Your task to perform on an android device: Show the shopping cart on newegg.com. Search for "logitech g pro" on newegg.com, select the first entry, and add it to the cart. Image 0: 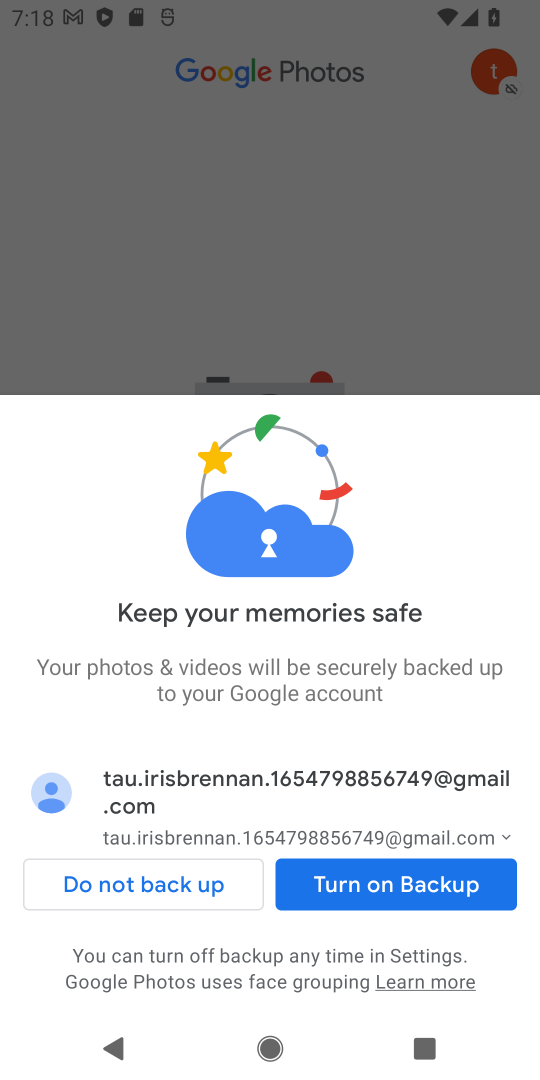
Step 0: press home button
Your task to perform on an android device: Show the shopping cart on newegg.com. Search for "logitech g pro" on newegg.com, select the first entry, and add it to the cart. Image 1: 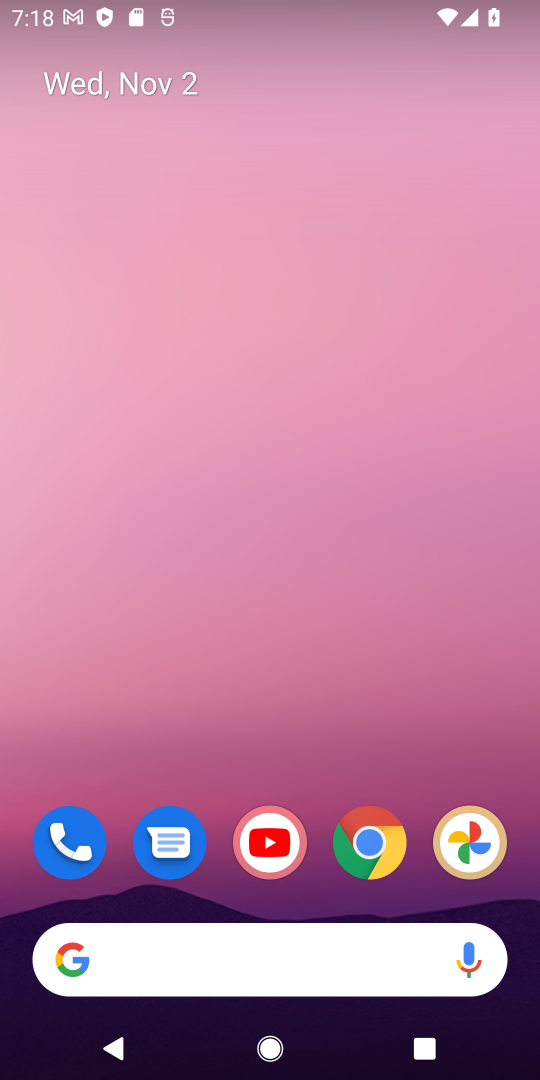
Step 1: drag from (194, 892) to (265, 324)
Your task to perform on an android device: Show the shopping cart on newegg.com. Search for "logitech g pro" on newegg.com, select the first entry, and add it to the cart. Image 2: 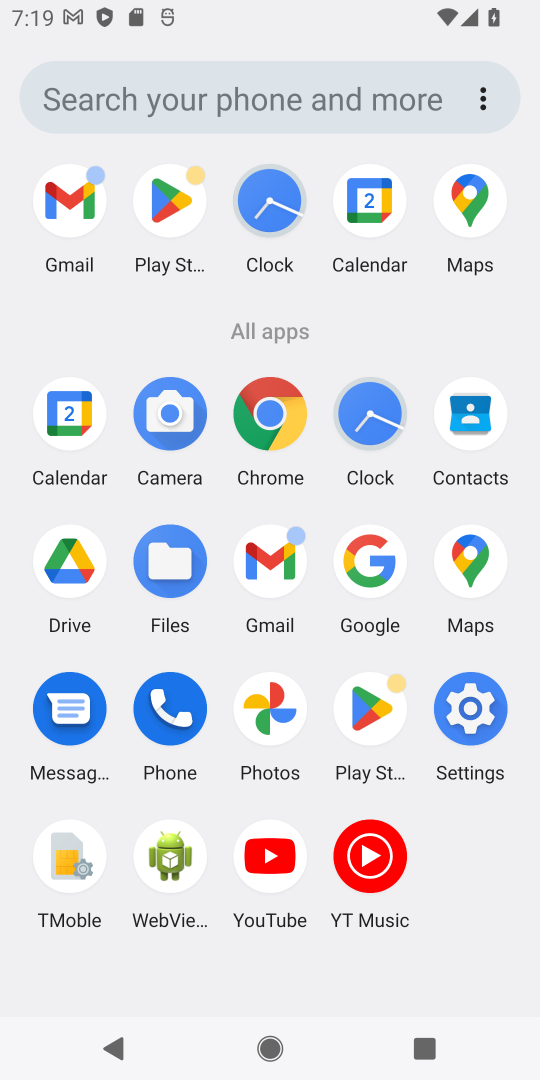
Step 2: click (352, 555)
Your task to perform on an android device: Show the shopping cart on newegg.com. Search for "logitech g pro" on newegg.com, select the first entry, and add it to the cart. Image 3: 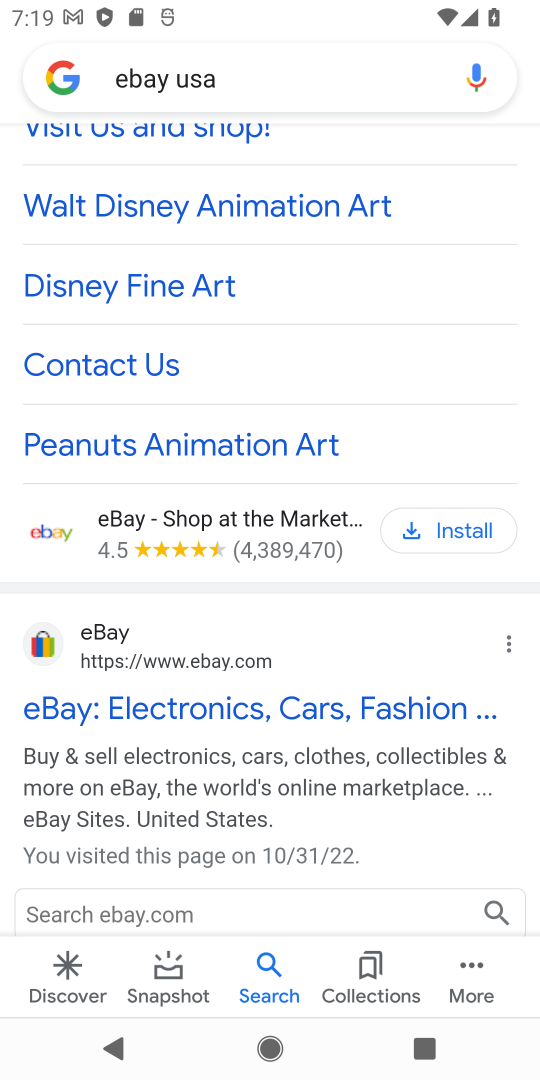
Step 3: click (140, 73)
Your task to perform on an android device: Show the shopping cart on newegg.com. Search for "logitech g pro" on newegg.com, select the first entry, and add it to the cart. Image 4: 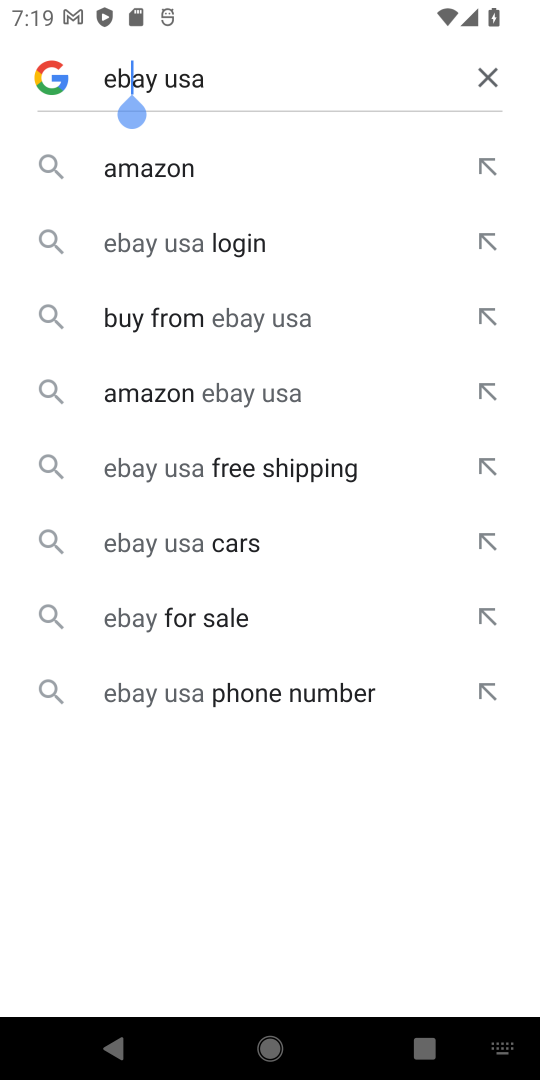
Step 4: click (477, 76)
Your task to perform on an android device: Show the shopping cart on newegg.com. Search for "logitech g pro" on newegg.com, select the first entry, and add it to the cart. Image 5: 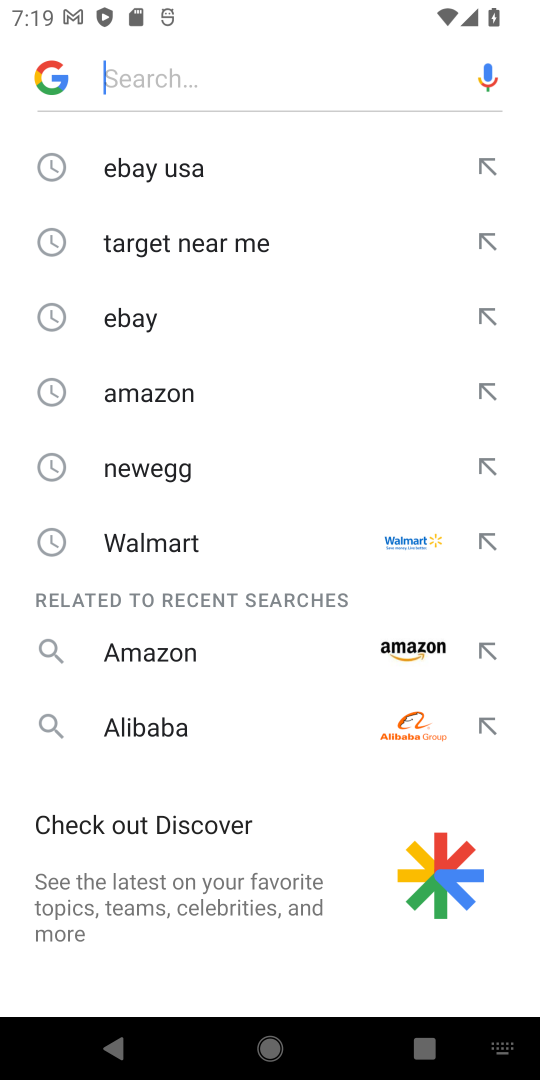
Step 5: click (181, 66)
Your task to perform on an android device: Show the shopping cart on newegg.com. Search for "logitech g pro" on newegg.com, select the first entry, and add it to the cart. Image 6: 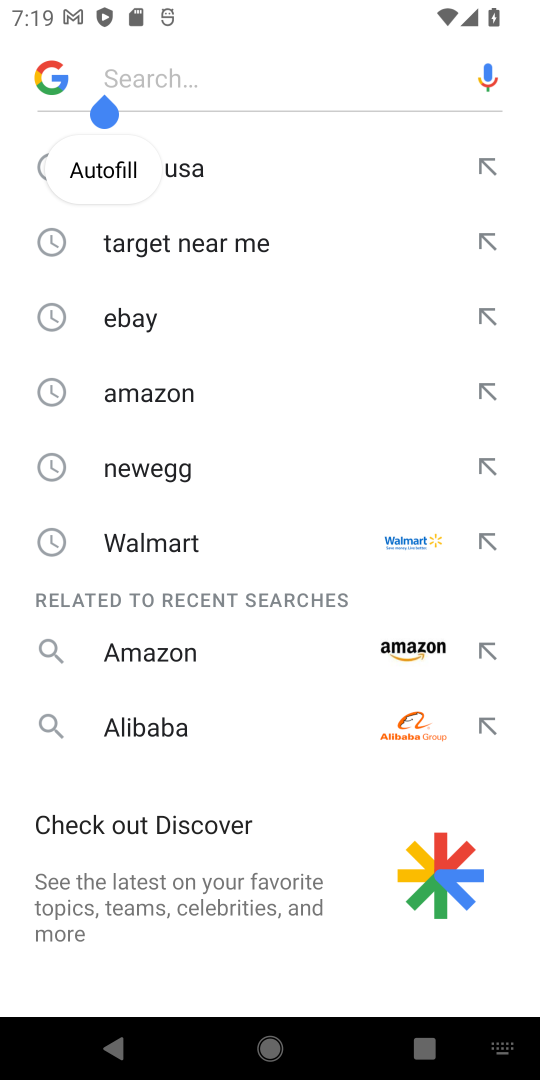
Step 6: type "newegg "
Your task to perform on an android device: Show the shopping cart on newegg.com. Search for "logitech g pro" on newegg.com, select the first entry, and add it to the cart. Image 7: 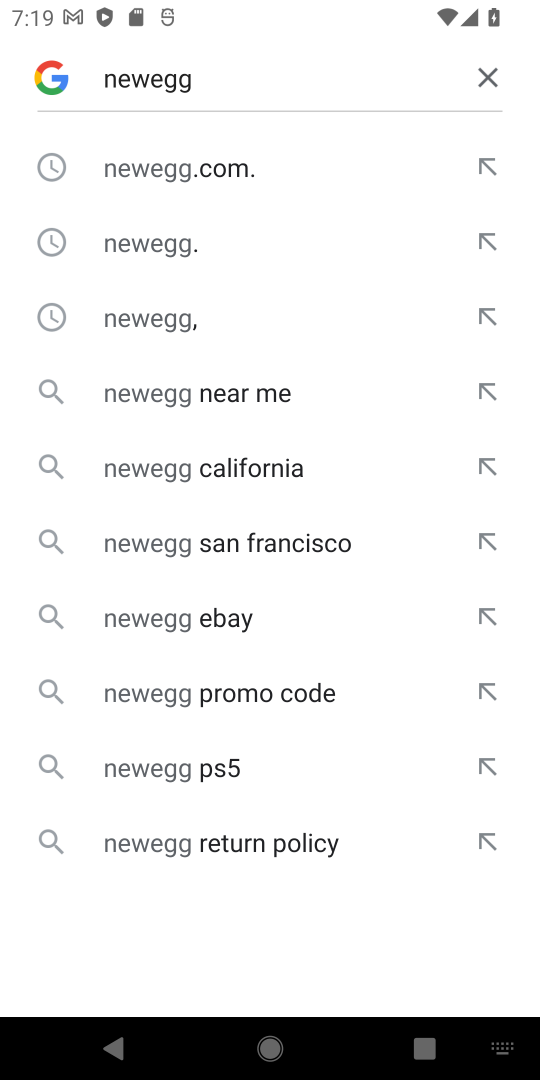
Step 7: click (182, 164)
Your task to perform on an android device: Show the shopping cart on newegg.com. Search for "logitech g pro" on newegg.com, select the first entry, and add it to the cart. Image 8: 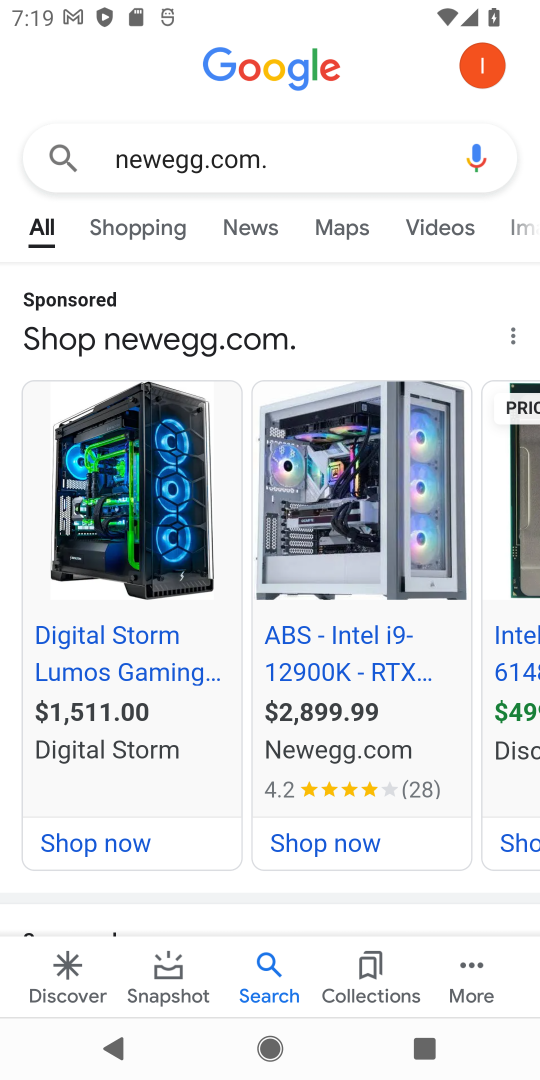
Step 8: drag from (148, 744) to (201, 315)
Your task to perform on an android device: Show the shopping cart on newegg.com. Search for "logitech g pro" on newegg.com, select the first entry, and add it to the cart. Image 9: 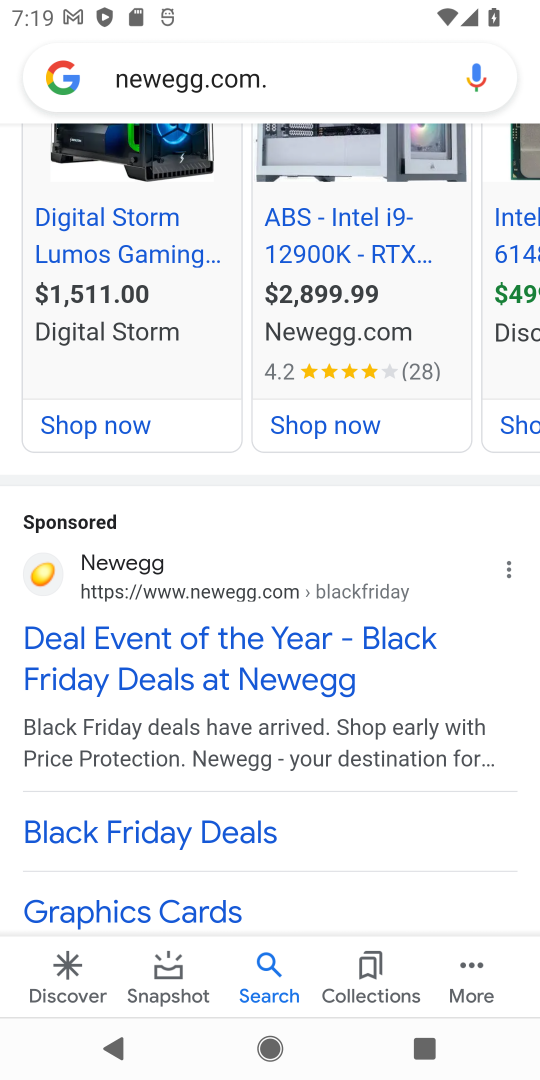
Step 9: click (40, 581)
Your task to perform on an android device: Show the shopping cart on newegg.com. Search for "logitech g pro" on newegg.com, select the first entry, and add it to the cart. Image 10: 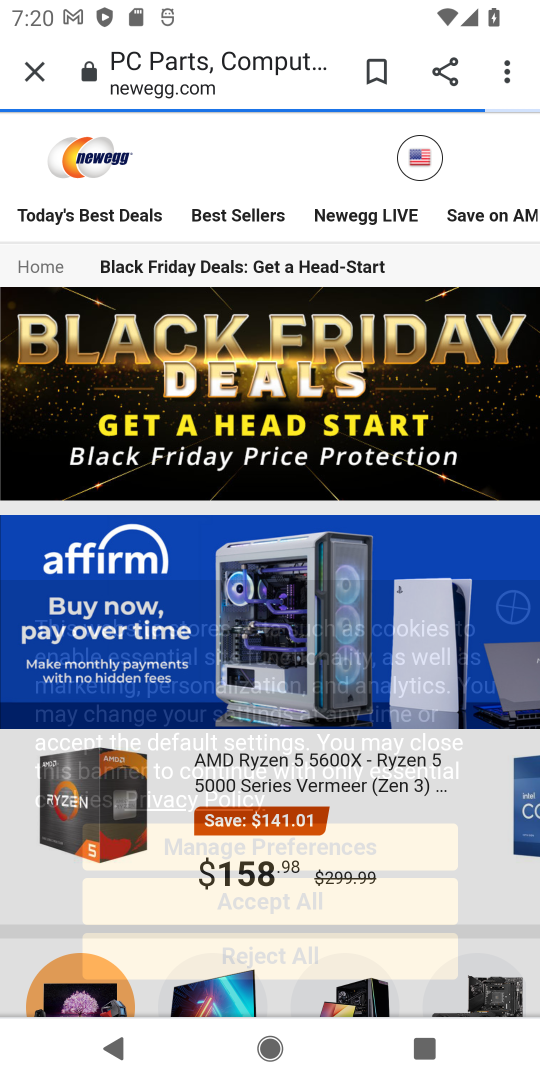
Step 10: drag from (197, 806) to (201, 705)
Your task to perform on an android device: Show the shopping cart on newegg.com. Search for "logitech g pro" on newegg.com, select the first entry, and add it to the cart. Image 11: 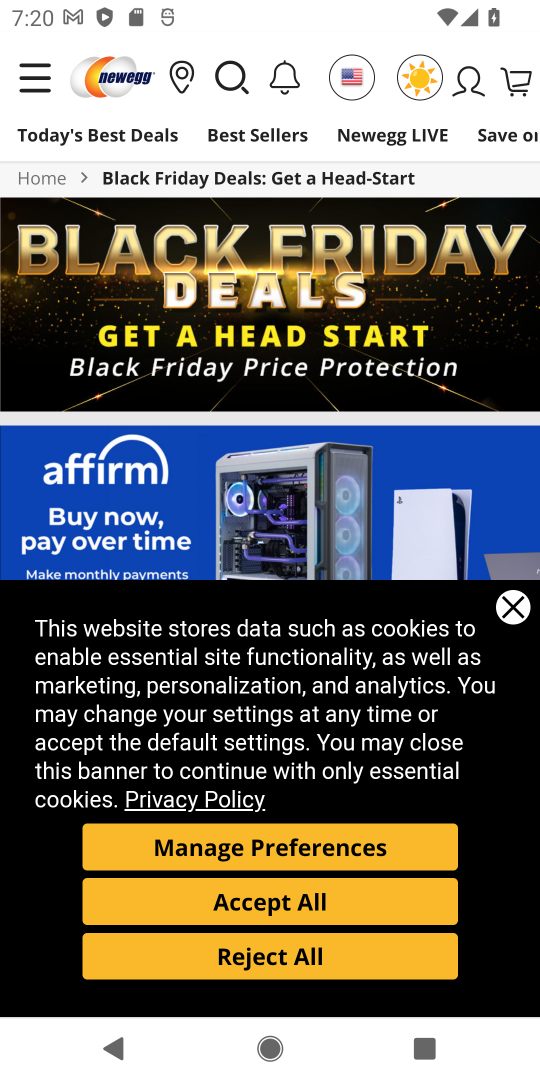
Step 11: click (508, 586)
Your task to perform on an android device: Show the shopping cart on newegg.com. Search for "logitech g pro" on newegg.com, select the first entry, and add it to the cart. Image 12: 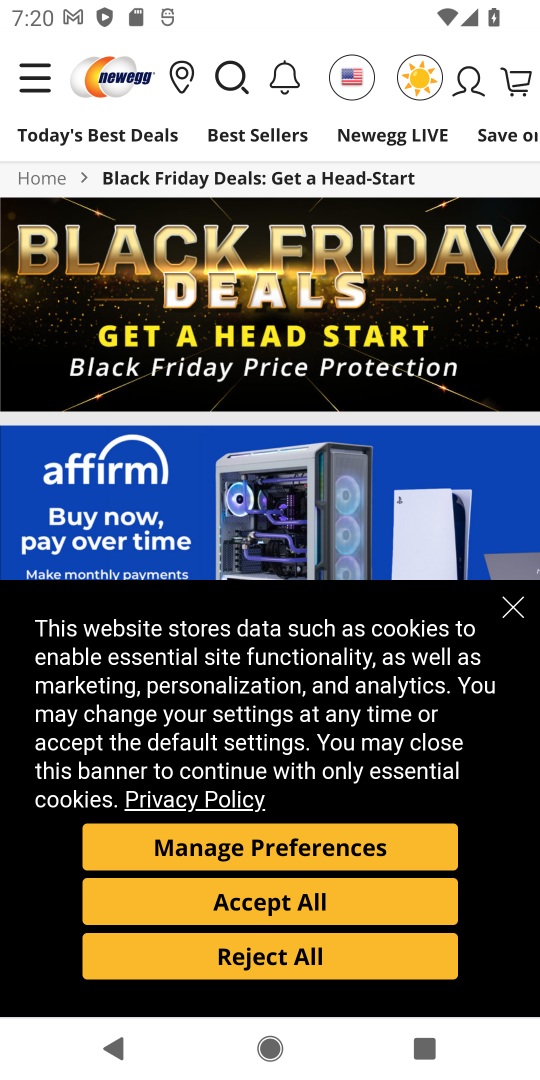
Step 12: click (509, 605)
Your task to perform on an android device: Show the shopping cart on newegg.com. Search for "logitech g pro" on newegg.com, select the first entry, and add it to the cart. Image 13: 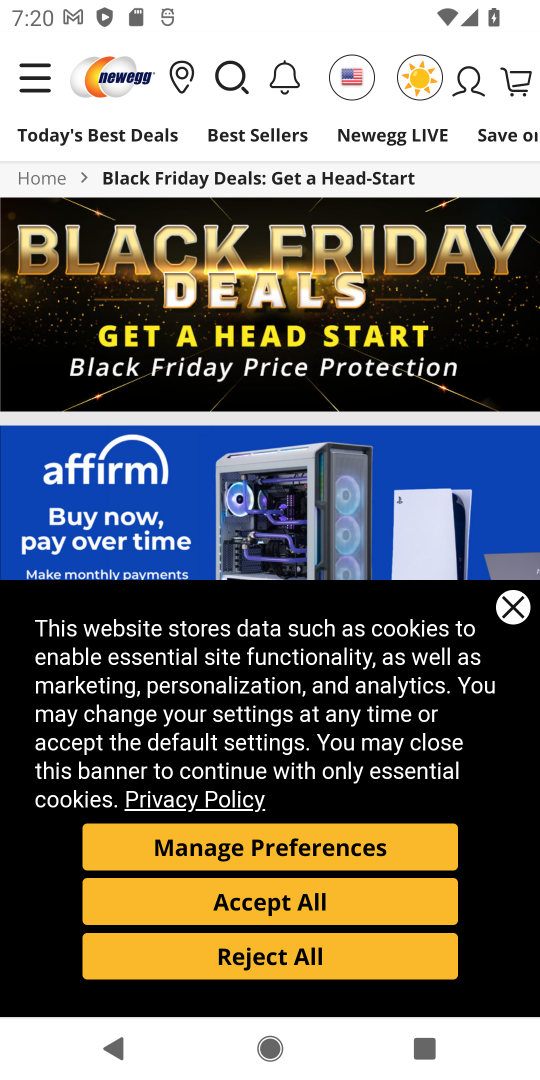
Step 13: click (500, 609)
Your task to perform on an android device: Show the shopping cart on newegg.com. Search for "logitech g pro" on newegg.com, select the first entry, and add it to the cart. Image 14: 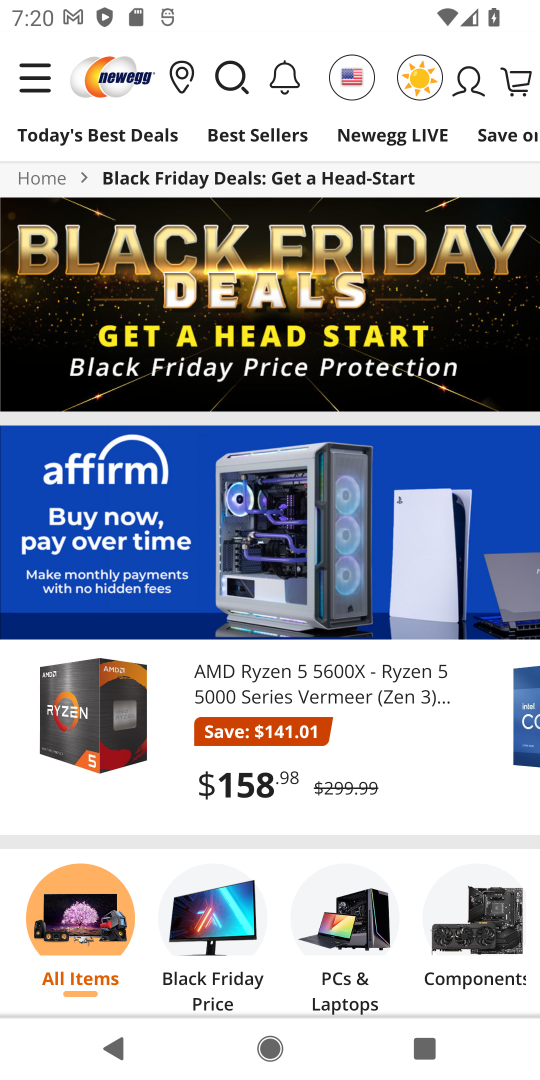
Step 14: click (230, 69)
Your task to perform on an android device: Show the shopping cart on newegg.com. Search for "logitech g pro" on newegg.com, select the first entry, and add it to the cart. Image 15: 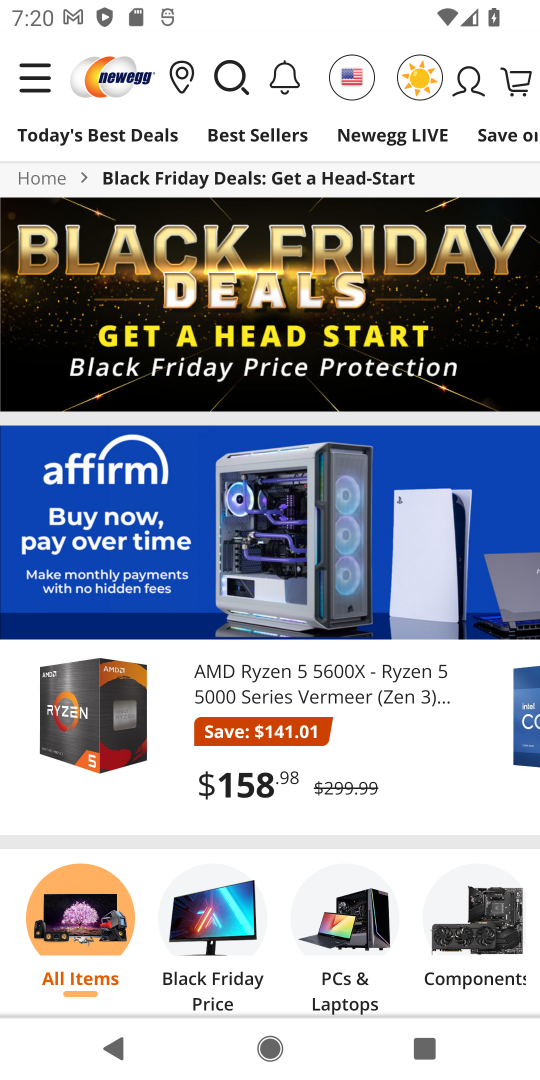
Step 15: click (230, 69)
Your task to perform on an android device: Show the shopping cart on newegg.com. Search for "logitech g pro" on newegg.com, select the first entry, and add it to the cart. Image 16: 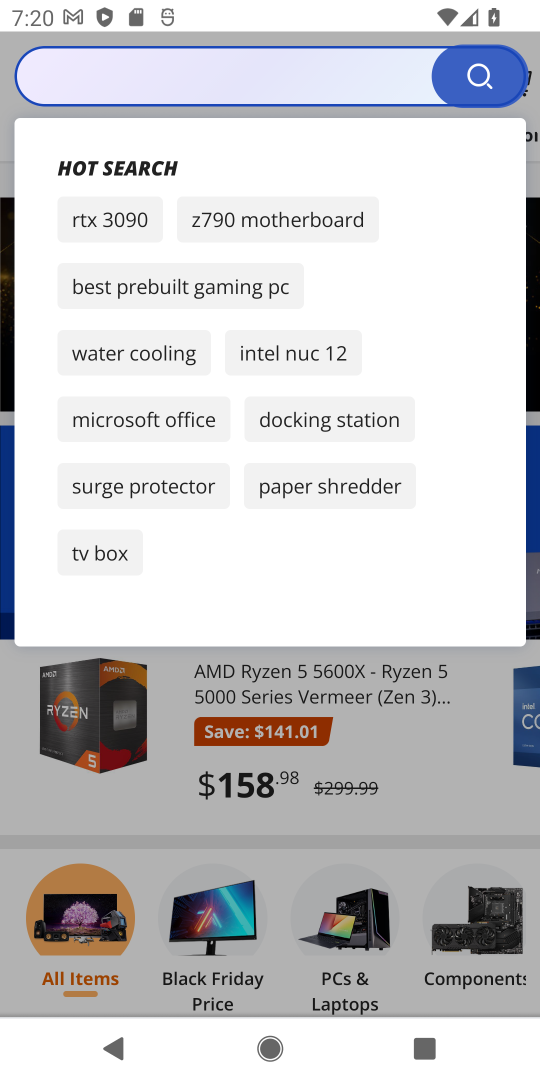
Step 16: click (185, 69)
Your task to perform on an android device: Show the shopping cart on newegg.com. Search for "logitech g pro" on newegg.com, select the first entry, and add it to the cart. Image 17: 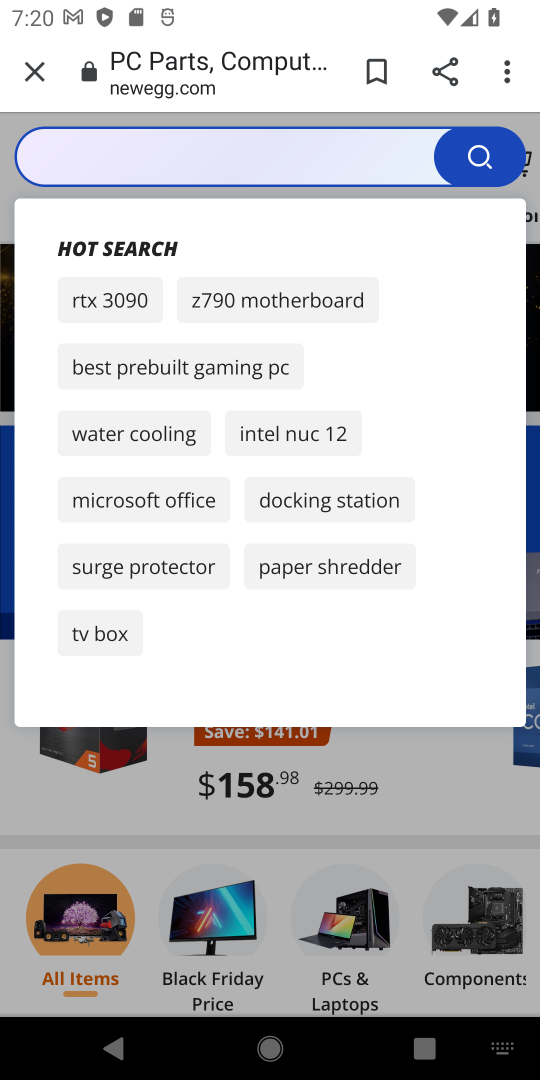
Step 17: type "logitech g pro "
Your task to perform on an android device: Show the shopping cart on newegg.com. Search for "logitech g pro" on newegg.com, select the first entry, and add it to the cart. Image 18: 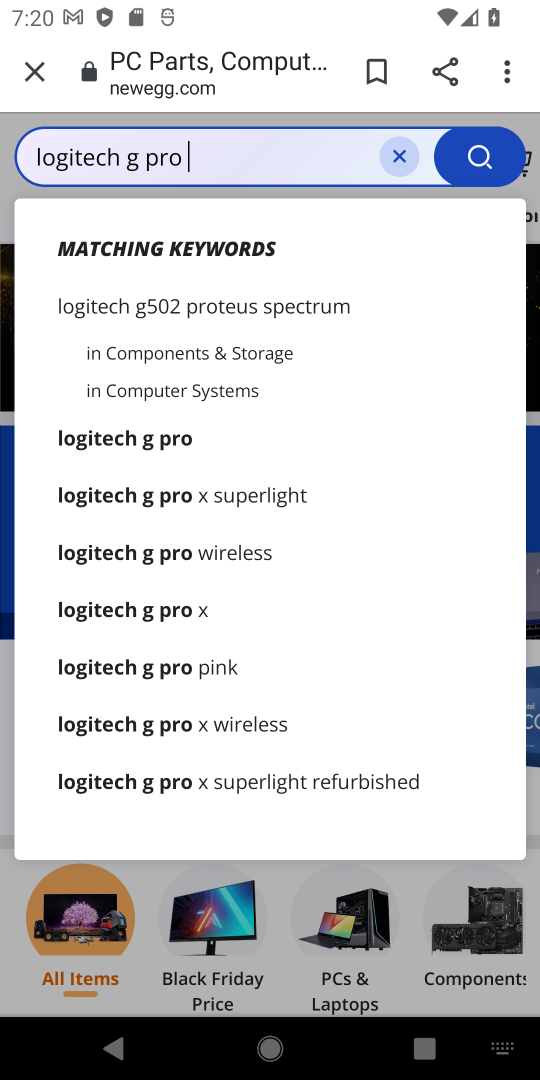
Step 18: click (124, 444)
Your task to perform on an android device: Show the shopping cart on newegg.com. Search for "logitech g pro" on newegg.com, select the first entry, and add it to the cart. Image 19: 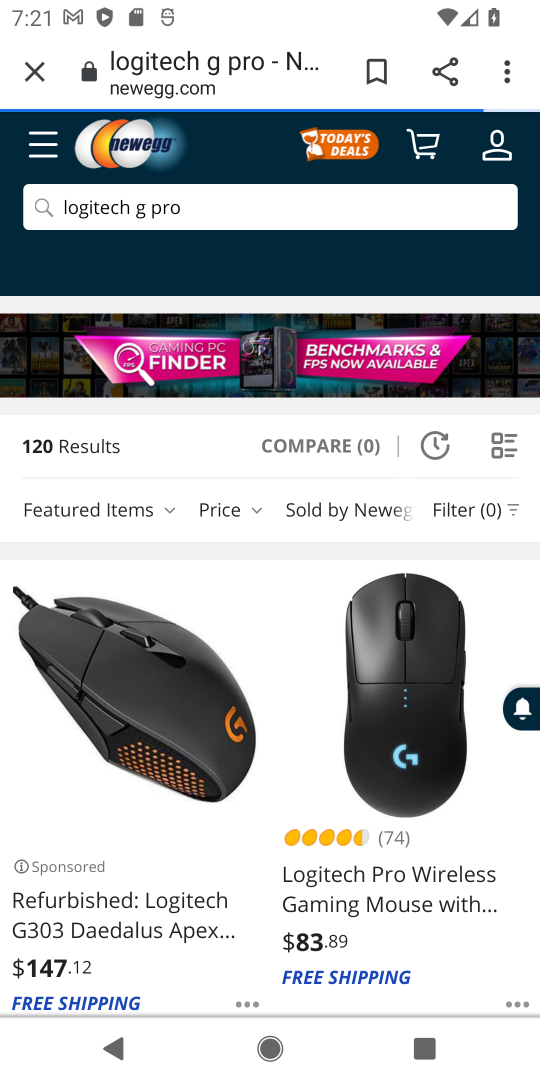
Step 19: drag from (138, 781) to (301, 381)
Your task to perform on an android device: Show the shopping cart on newegg.com. Search for "logitech g pro" on newegg.com, select the first entry, and add it to the cart. Image 20: 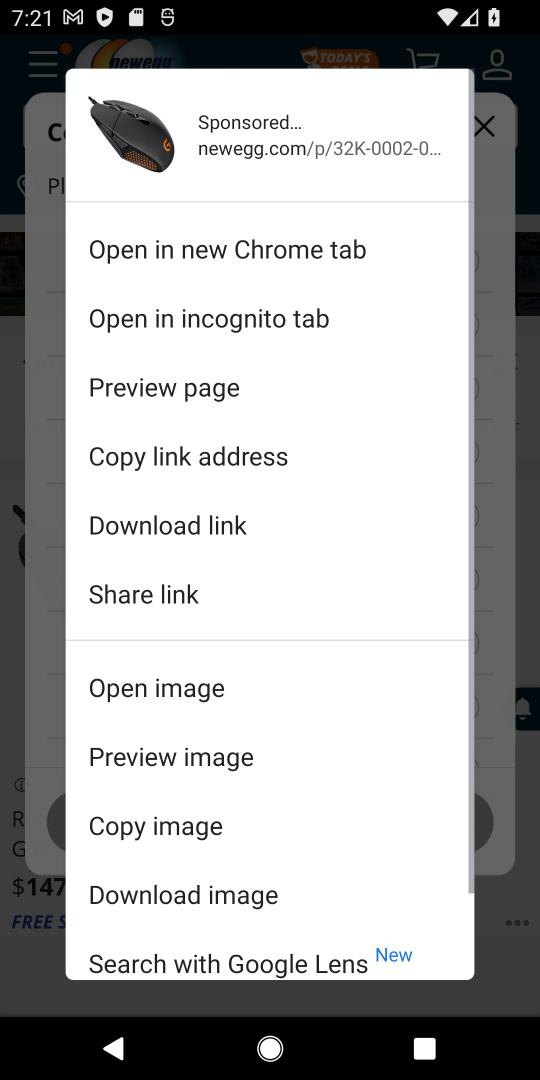
Step 20: click (199, 444)
Your task to perform on an android device: Show the shopping cart on newegg.com. Search for "logitech g pro" on newegg.com, select the first entry, and add it to the cart. Image 21: 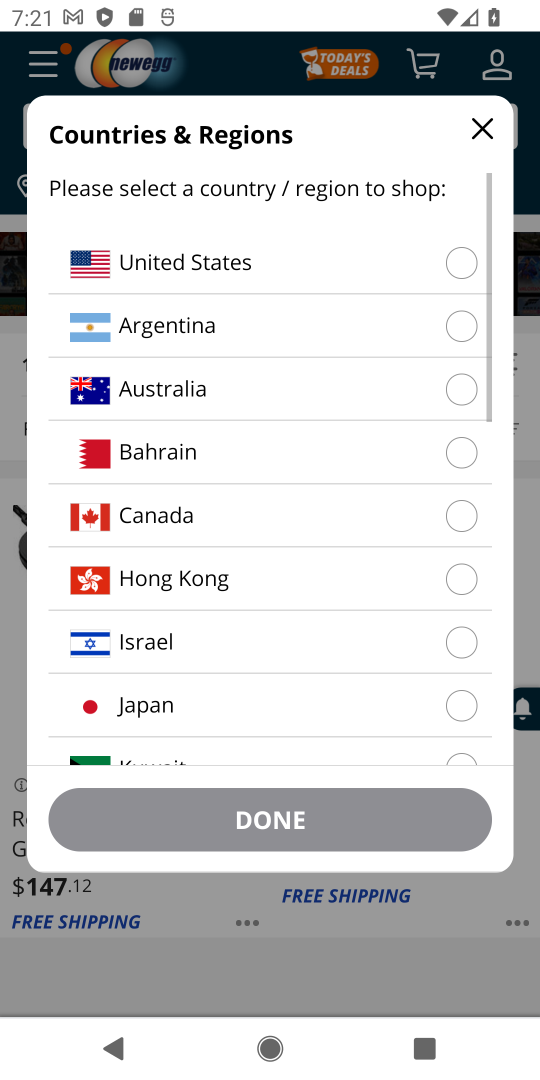
Step 21: click (457, 219)
Your task to perform on an android device: Show the shopping cart on newegg.com. Search for "logitech g pro" on newegg.com, select the first entry, and add it to the cart. Image 22: 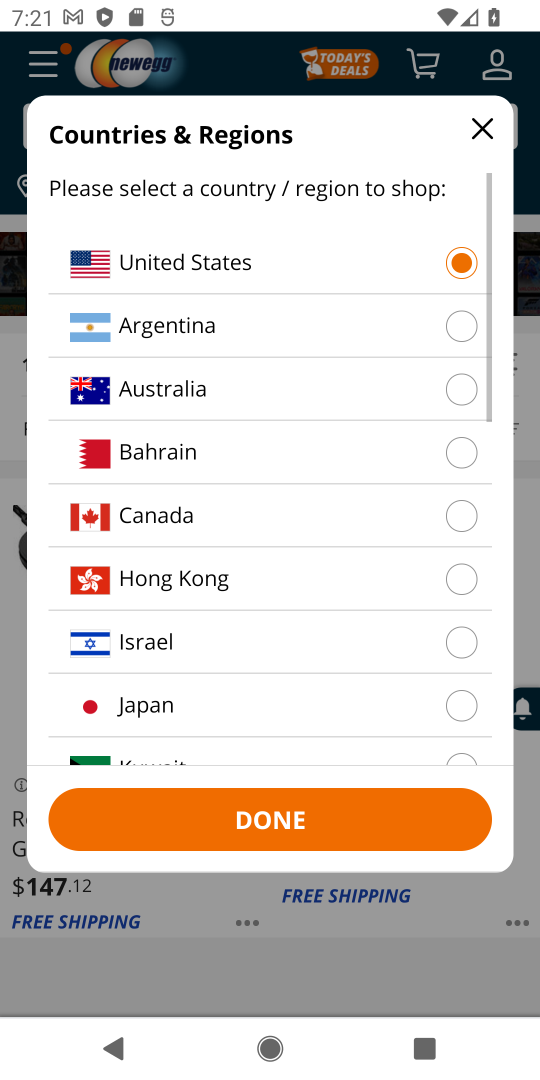
Step 22: click (434, 306)
Your task to perform on an android device: Show the shopping cart on newegg.com. Search for "logitech g pro" on newegg.com, select the first entry, and add it to the cart. Image 23: 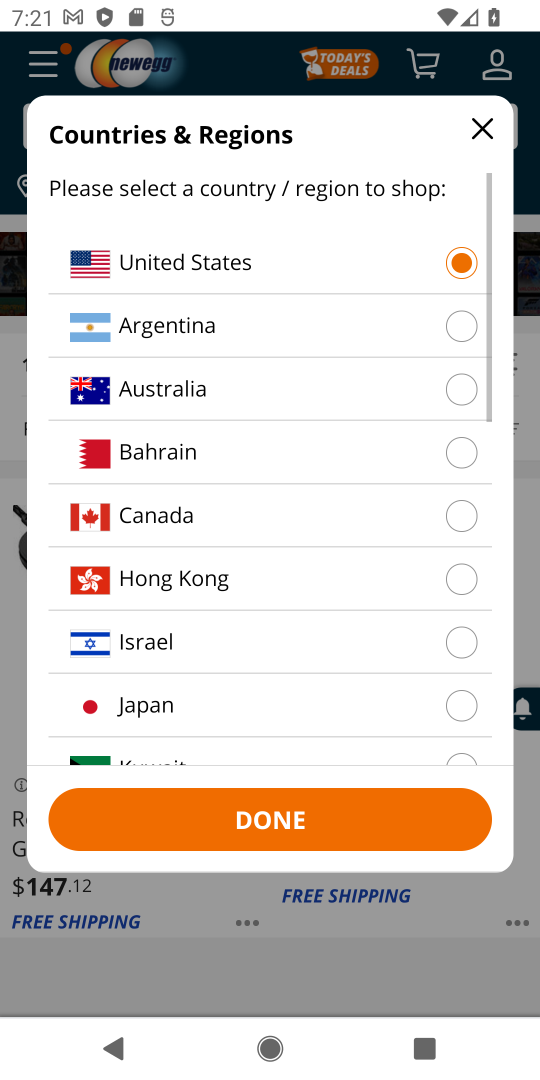
Step 23: click (490, 203)
Your task to perform on an android device: Show the shopping cart on newegg.com. Search for "logitech g pro" on newegg.com, select the first entry, and add it to the cart. Image 24: 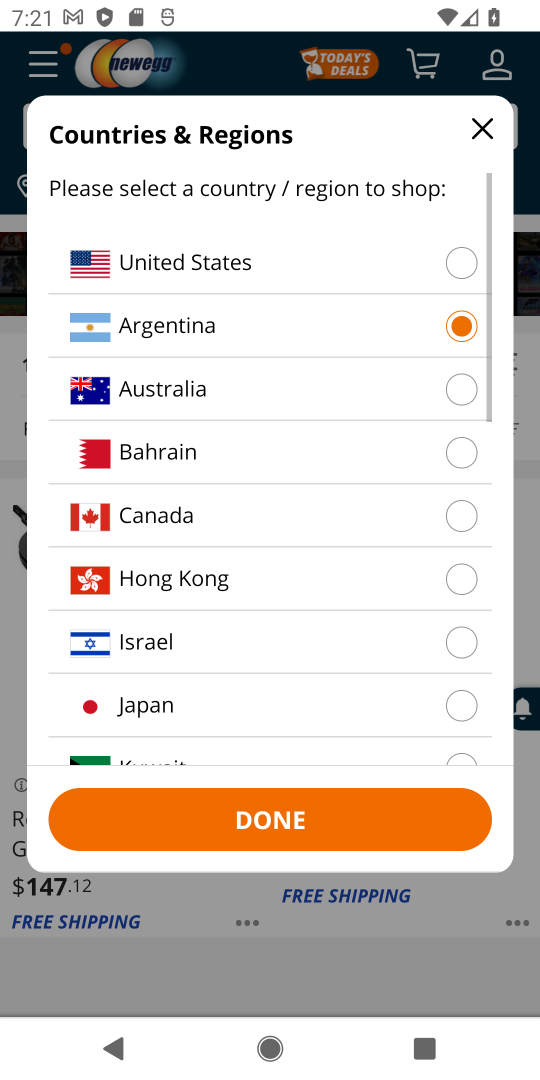
Step 24: click (369, 791)
Your task to perform on an android device: Show the shopping cart on newegg.com. Search for "logitech g pro" on newegg.com, select the first entry, and add it to the cart. Image 25: 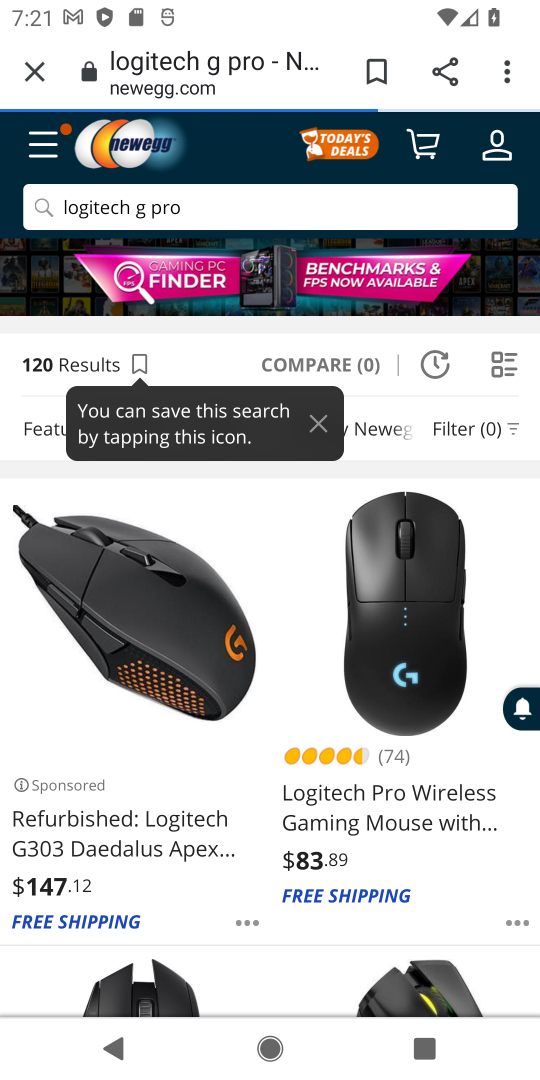
Step 25: click (92, 673)
Your task to perform on an android device: Show the shopping cart on newegg.com. Search for "logitech g pro" on newegg.com, select the first entry, and add it to the cart. Image 26: 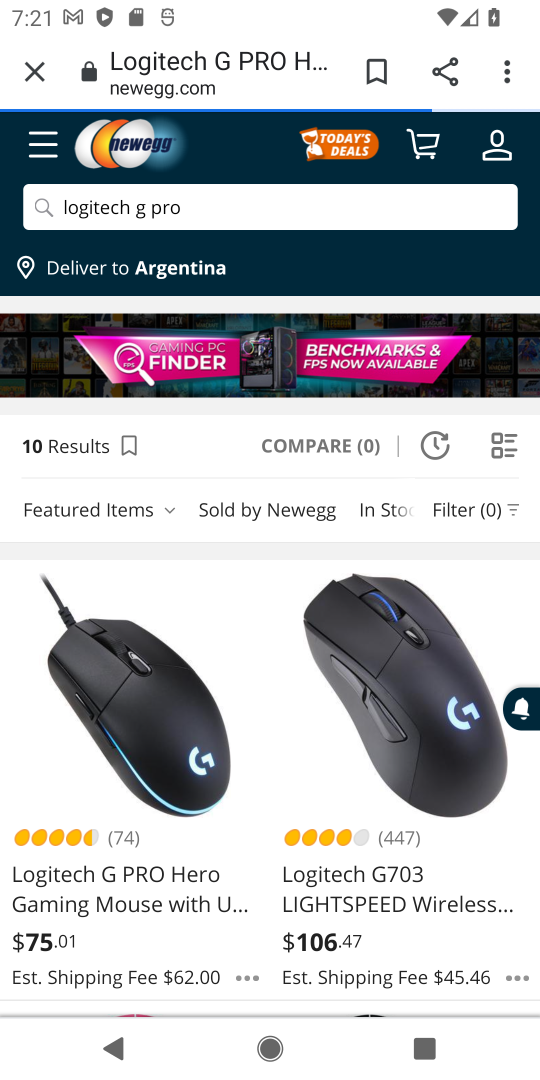
Step 26: click (142, 688)
Your task to perform on an android device: Show the shopping cart on newegg.com. Search for "logitech g pro" on newegg.com, select the first entry, and add it to the cart. Image 27: 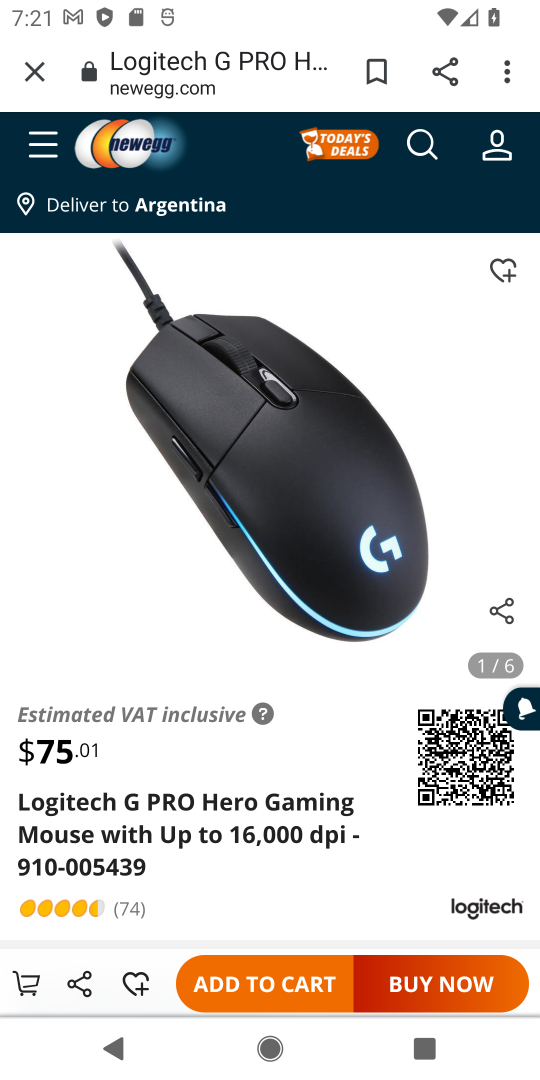
Step 27: click (269, 970)
Your task to perform on an android device: Show the shopping cart on newegg.com. Search for "logitech g pro" on newegg.com, select the first entry, and add it to the cart. Image 28: 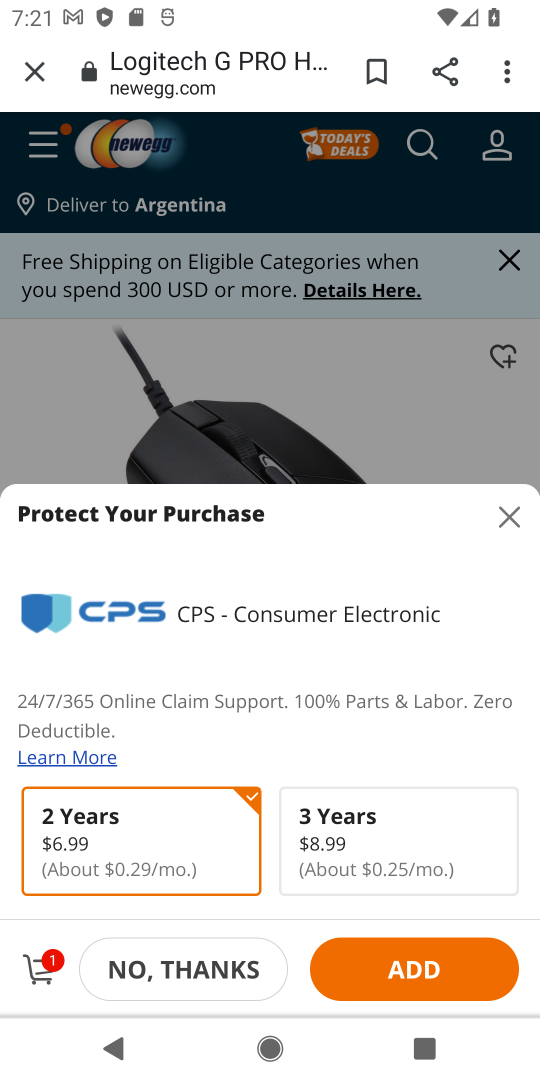
Step 28: task complete